Your task to perform on an android device: turn on priority inbox in the gmail app Image 0: 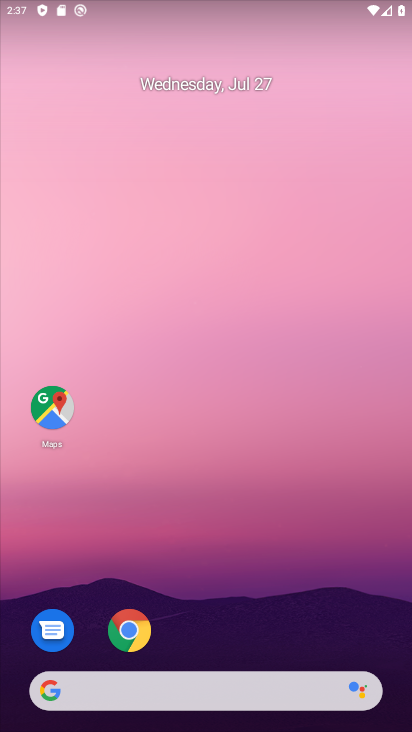
Step 0: drag from (265, 635) to (259, 201)
Your task to perform on an android device: turn on priority inbox in the gmail app Image 1: 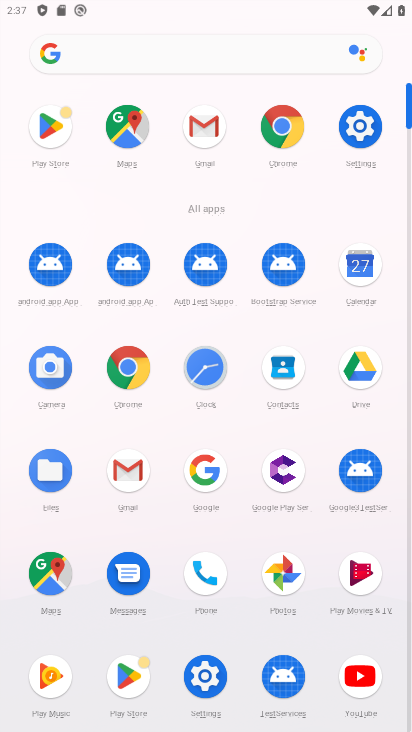
Step 1: click (204, 129)
Your task to perform on an android device: turn on priority inbox in the gmail app Image 2: 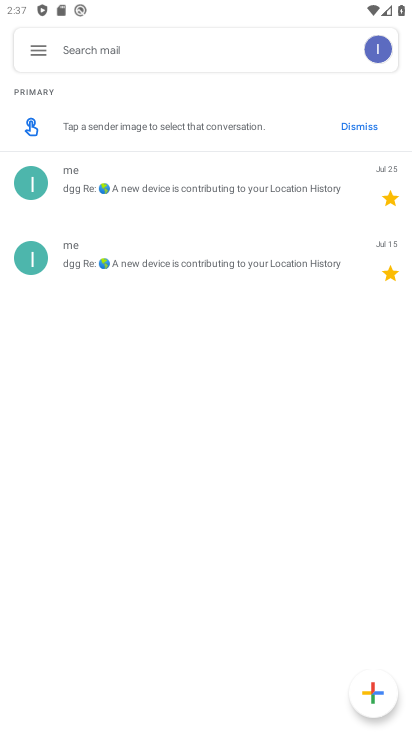
Step 2: click (36, 48)
Your task to perform on an android device: turn on priority inbox in the gmail app Image 3: 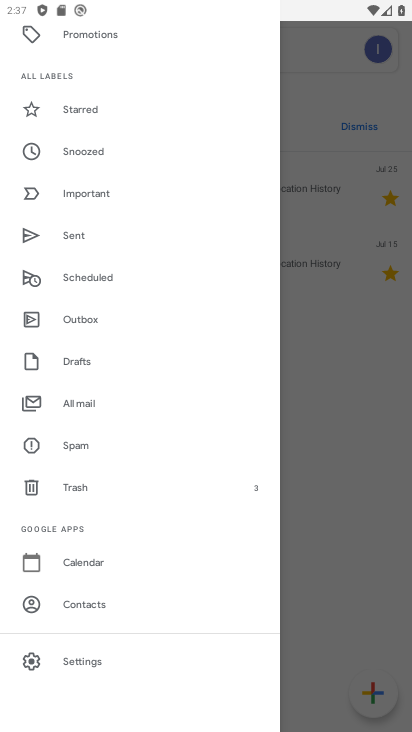
Step 3: click (80, 662)
Your task to perform on an android device: turn on priority inbox in the gmail app Image 4: 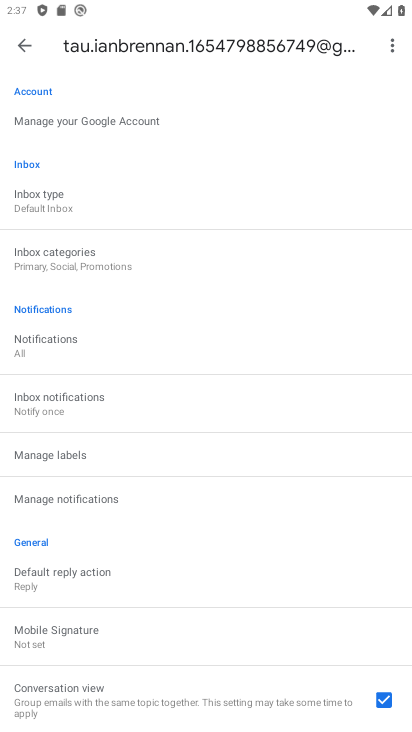
Step 4: click (58, 200)
Your task to perform on an android device: turn on priority inbox in the gmail app Image 5: 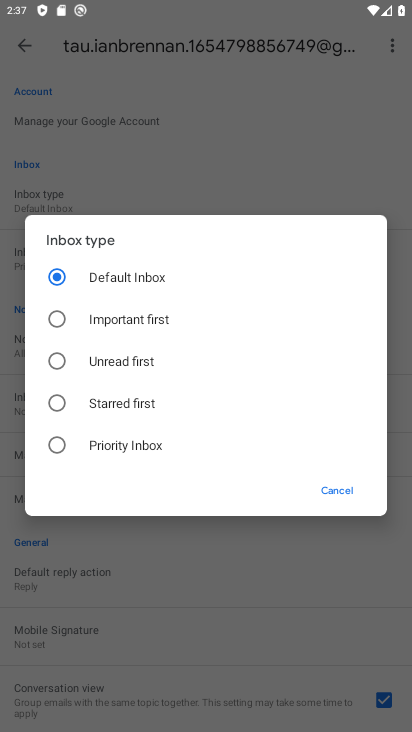
Step 5: click (60, 449)
Your task to perform on an android device: turn on priority inbox in the gmail app Image 6: 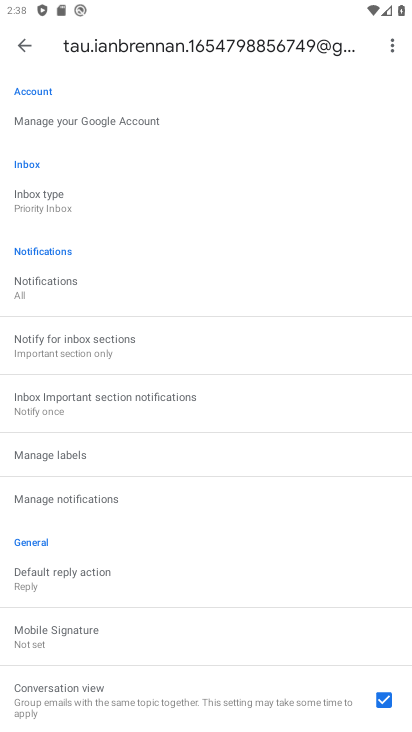
Step 6: task complete